Your task to perform on an android device: Open CNN.com Image 0: 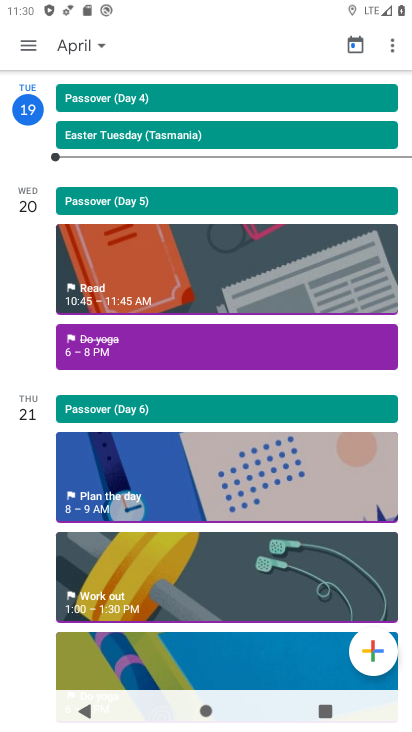
Step 0: press home button
Your task to perform on an android device: Open CNN.com Image 1: 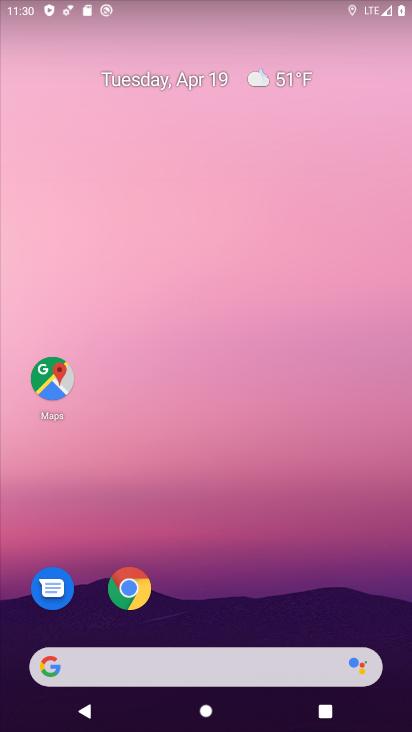
Step 1: click (129, 585)
Your task to perform on an android device: Open CNN.com Image 2: 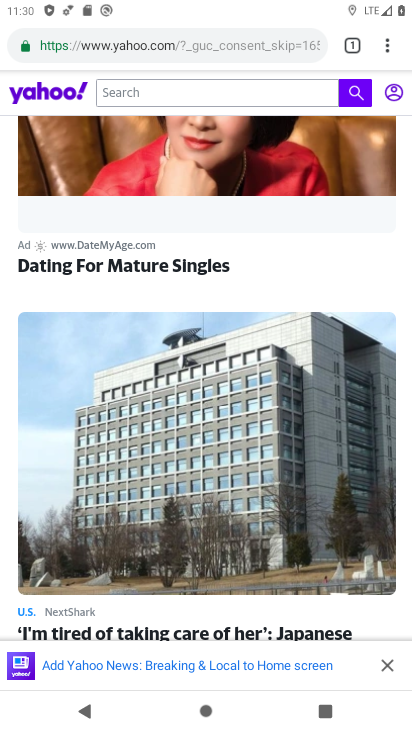
Step 2: click (344, 40)
Your task to perform on an android device: Open CNN.com Image 3: 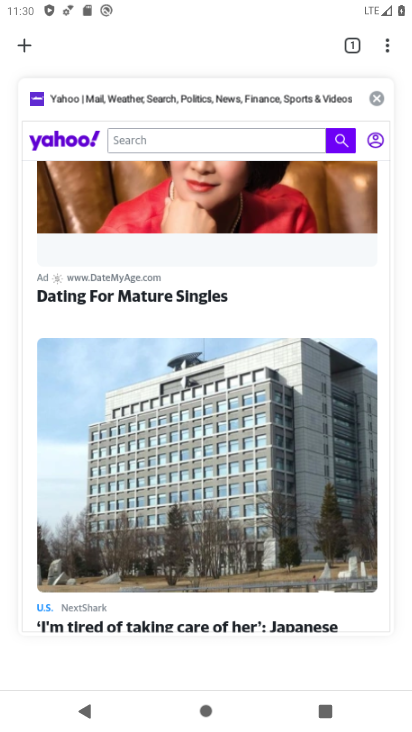
Step 3: click (377, 99)
Your task to perform on an android device: Open CNN.com Image 4: 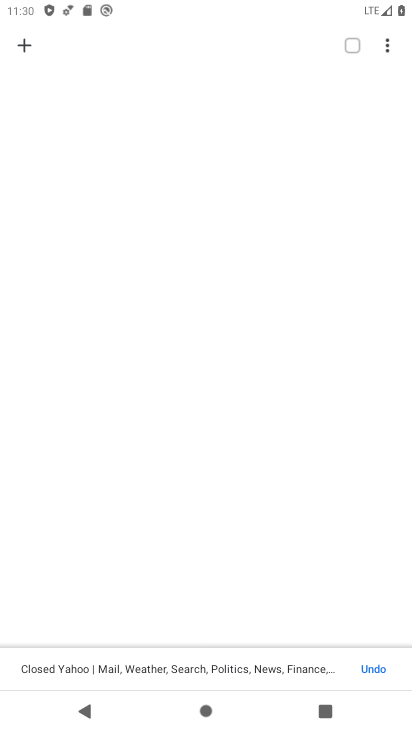
Step 4: click (24, 51)
Your task to perform on an android device: Open CNN.com Image 5: 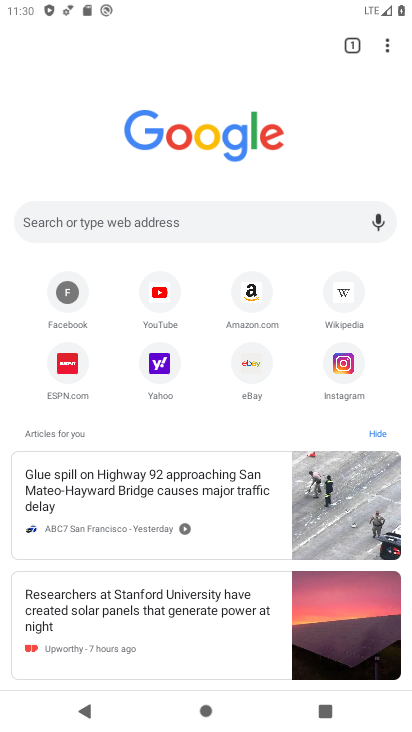
Step 5: click (148, 219)
Your task to perform on an android device: Open CNN.com Image 6: 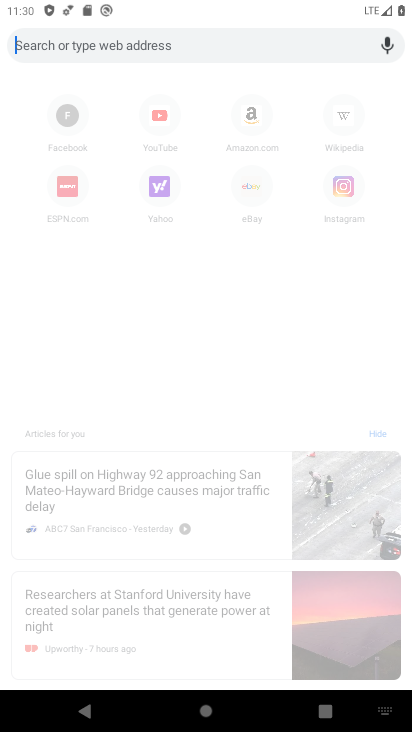
Step 6: type "cnn.com"
Your task to perform on an android device: Open CNN.com Image 7: 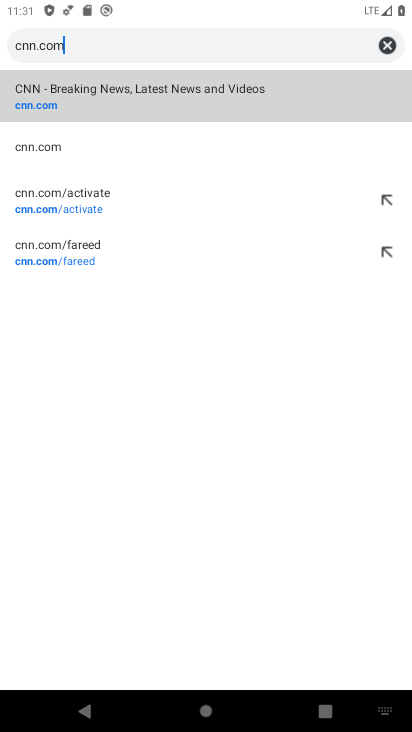
Step 7: click (97, 99)
Your task to perform on an android device: Open CNN.com Image 8: 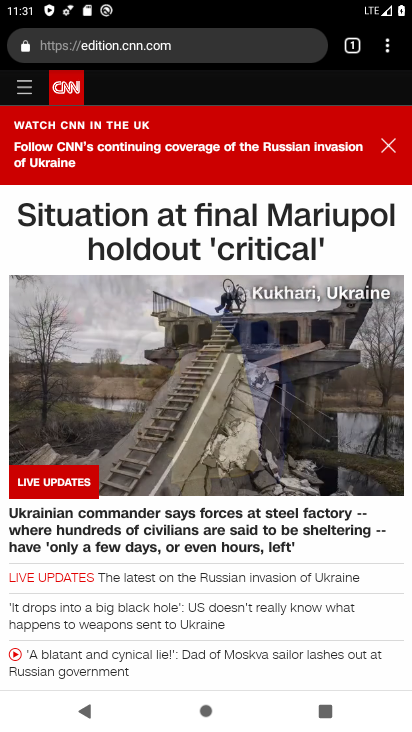
Step 8: task complete